Your task to perform on an android device: stop showing notifications on the lock screen Image 0: 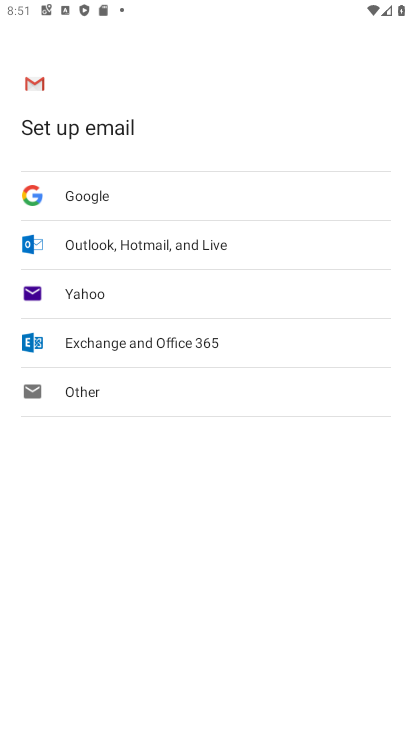
Step 0: press home button
Your task to perform on an android device: stop showing notifications on the lock screen Image 1: 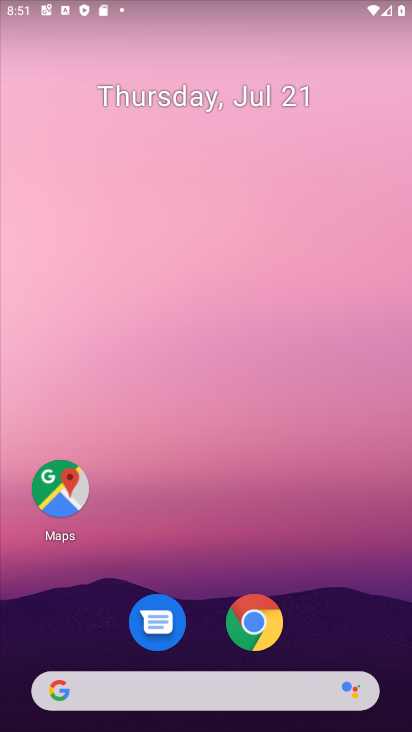
Step 1: drag from (272, 700) to (215, 78)
Your task to perform on an android device: stop showing notifications on the lock screen Image 2: 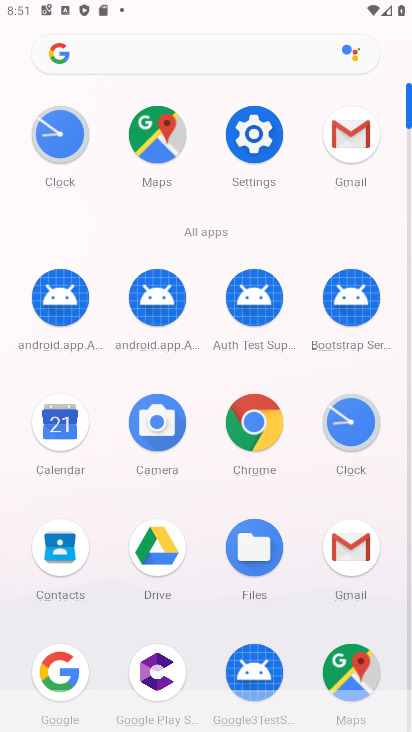
Step 2: click (258, 152)
Your task to perform on an android device: stop showing notifications on the lock screen Image 3: 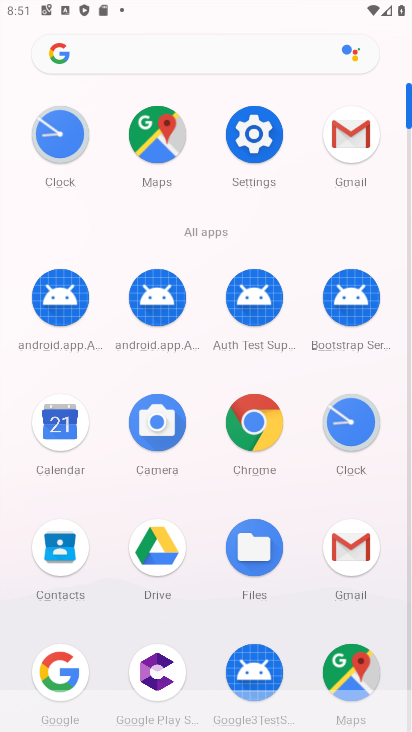
Step 3: click (258, 152)
Your task to perform on an android device: stop showing notifications on the lock screen Image 4: 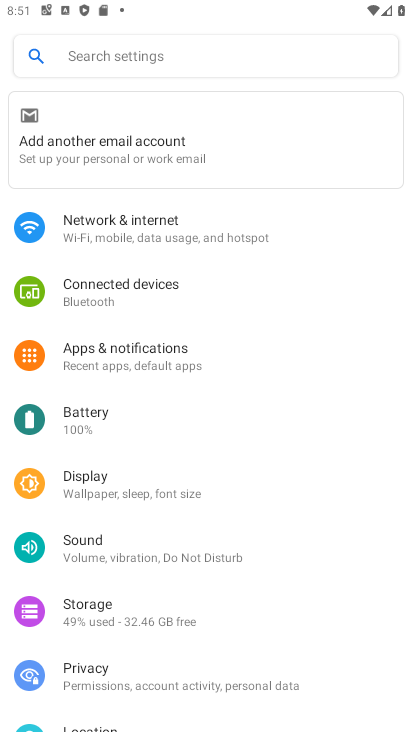
Step 4: click (157, 350)
Your task to perform on an android device: stop showing notifications on the lock screen Image 5: 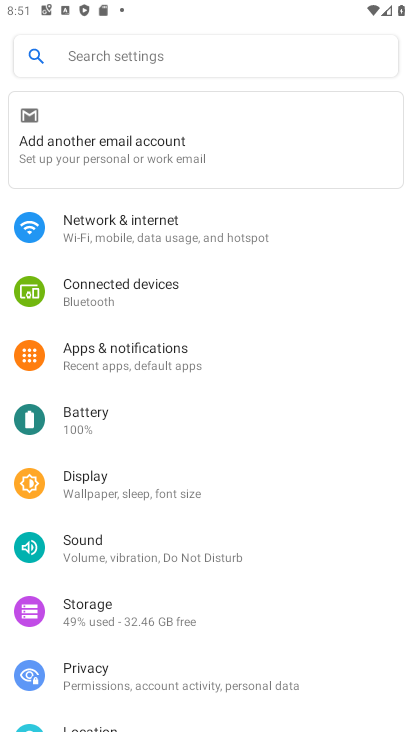
Step 5: click (157, 350)
Your task to perform on an android device: stop showing notifications on the lock screen Image 6: 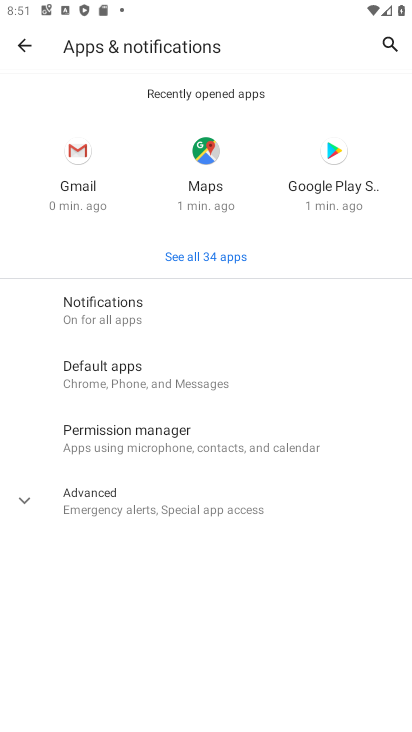
Step 6: click (253, 300)
Your task to perform on an android device: stop showing notifications on the lock screen Image 7: 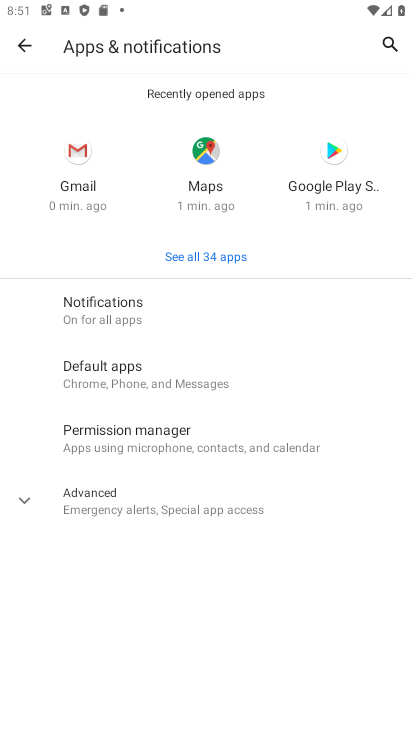
Step 7: click (253, 300)
Your task to perform on an android device: stop showing notifications on the lock screen Image 8: 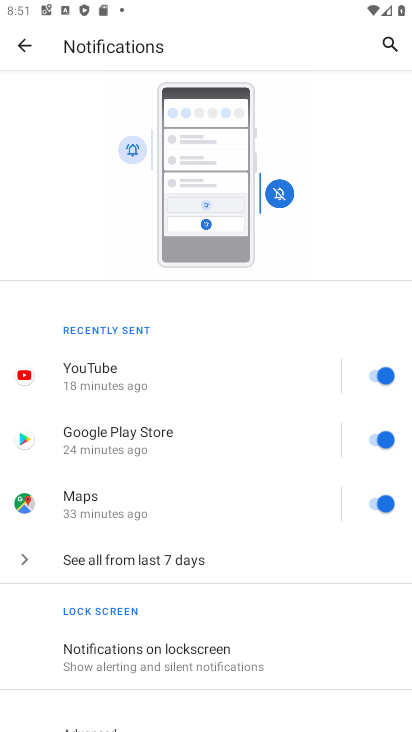
Step 8: click (119, 665)
Your task to perform on an android device: stop showing notifications on the lock screen Image 9: 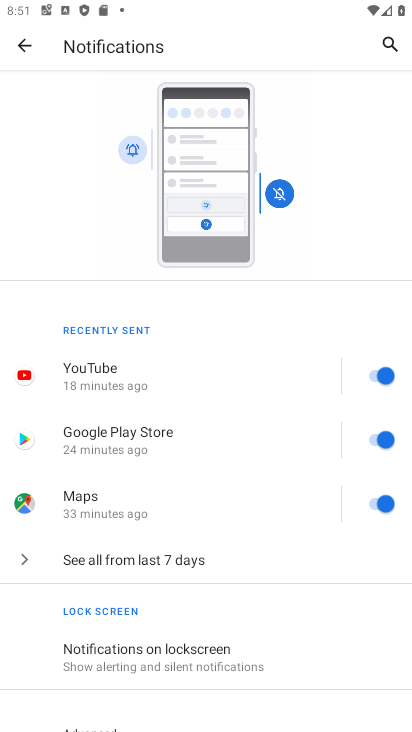
Step 9: click (119, 665)
Your task to perform on an android device: stop showing notifications on the lock screen Image 10: 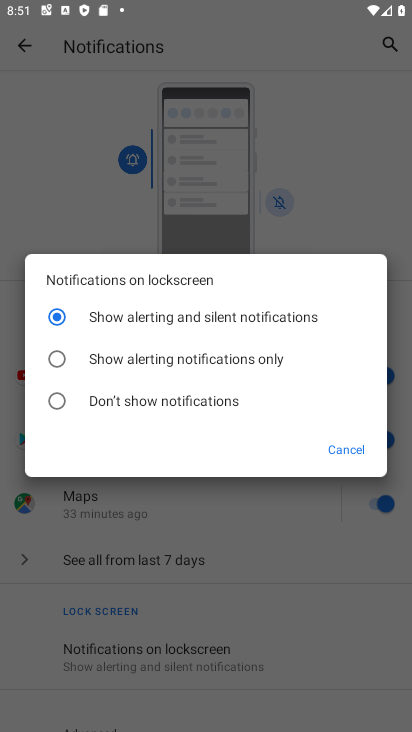
Step 10: click (211, 400)
Your task to perform on an android device: stop showing notifications on the lock screen Image 11: 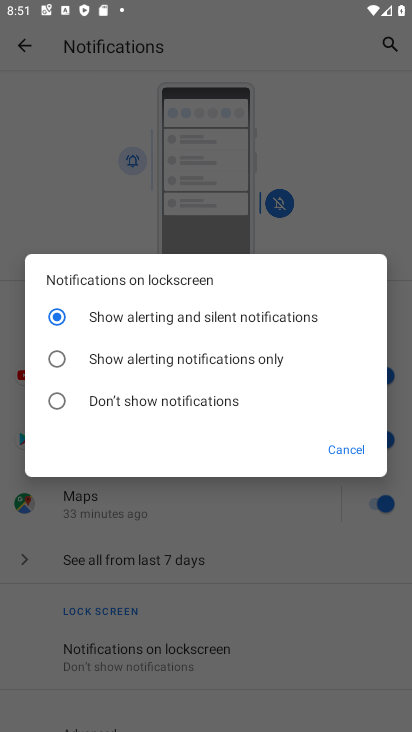
Step 11: click (54, 403)
Your task to perform on an android device: stop showing notifications on the lock screen Image 12: 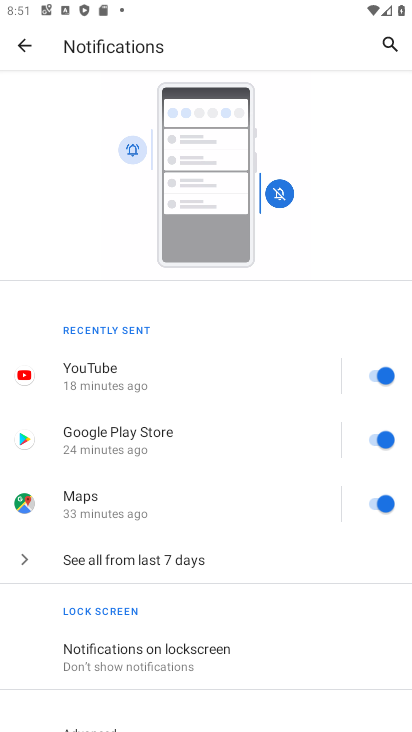
Step 12: task complete